Your task to perform on an android device: open app "Expedia: Hotels, Flights & Car" (install if not already installed) and enter user name: "crusader@outlook.com" and password: "Toryize" Image 0: 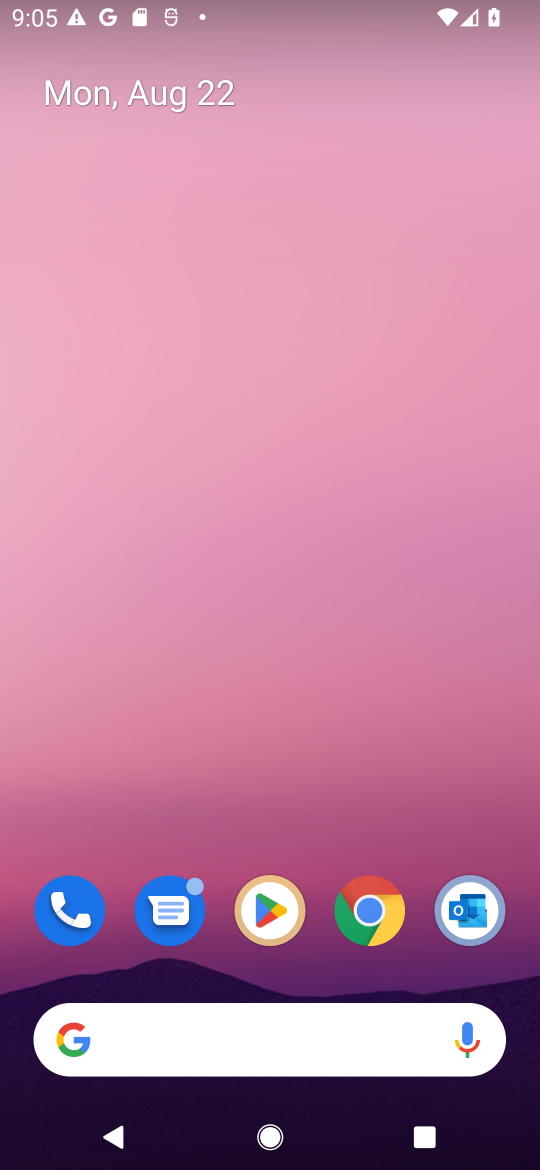
Step 0: click (275, 899)
Your task to perform on an android device: open app "Expedia: Hotels, Flights & Car" (install if not already installed) and enter user name: "crusader@outlook.com" and password: "Toryize" Image 1: 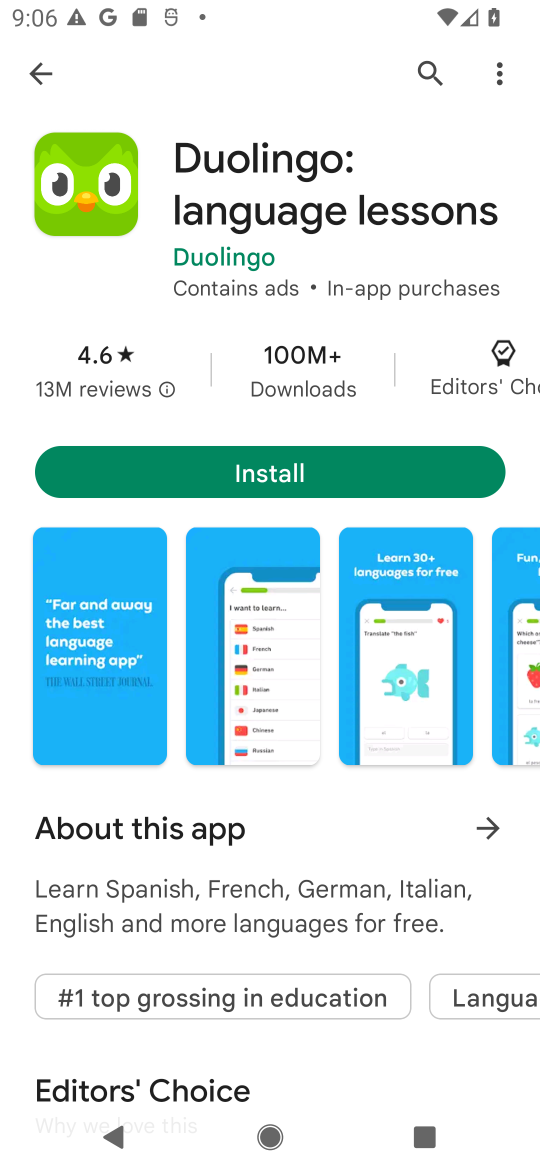
Step 1: click (424, 65)
Your task to perform on an android device: open app "Expedia: Hotels, Flights & Car" (install if not already installed) and enter user name: "crusader@outlook.com" and password: "Toryize" Image 2: 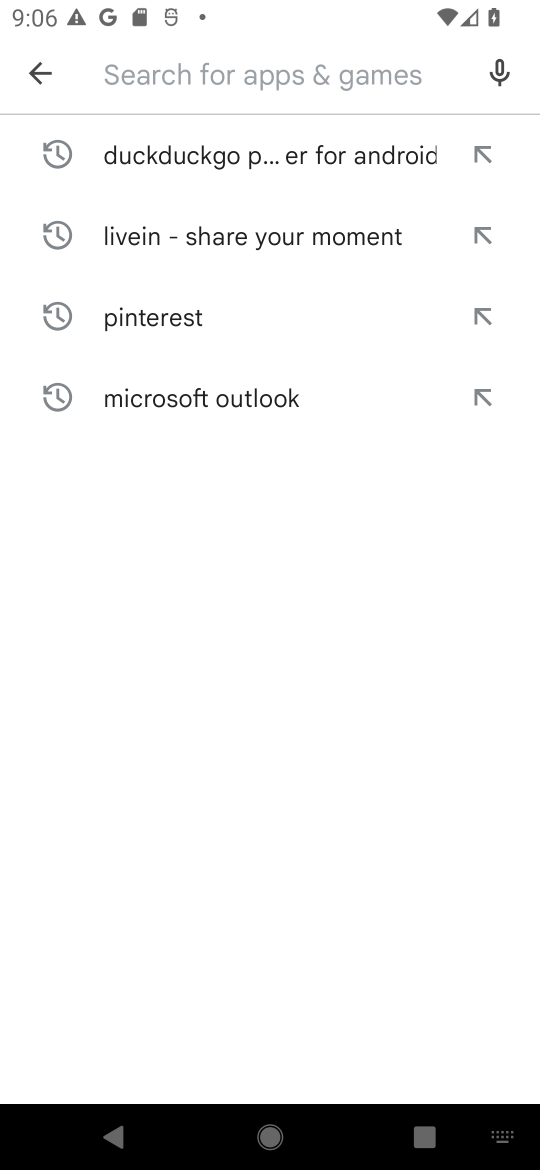
Step 2: type "Expedia: Hotels, Flights & Car"
Your task to perform on an android device: open app "Expedia: Hotels, Flights & Car" (install if not already installed) and enter user name: "crusader@outlook.com" and password: "Toryize" Image 3: 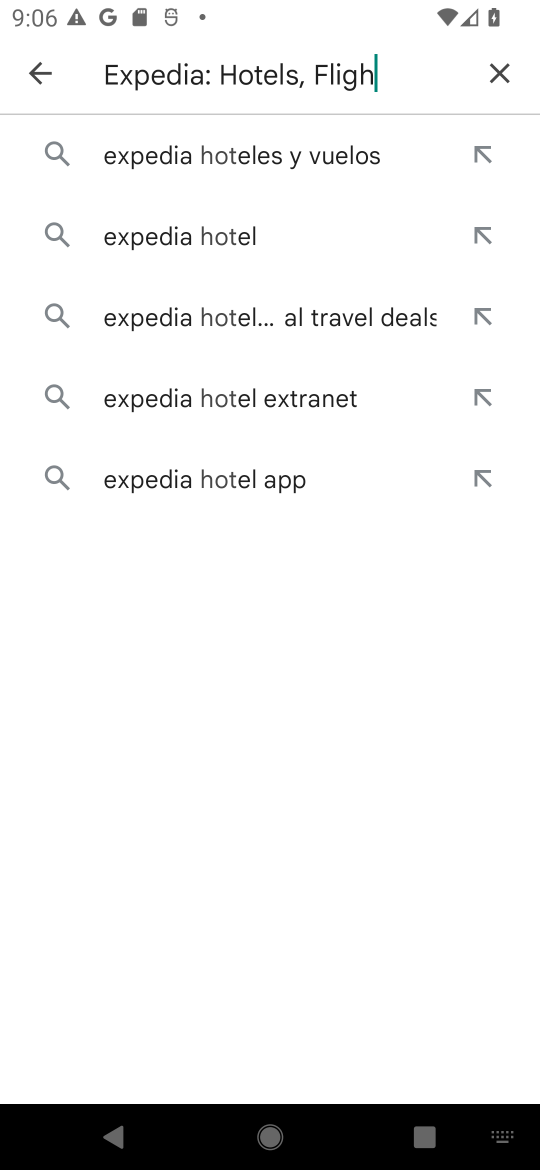
Step 3: type ""
Your task to perform on an android device: open app "Expedia: Hotels, Flights & Car" (install if not already installed) and enter user name: "crusader@outlook.com" and password: "Toryize" Image 4: 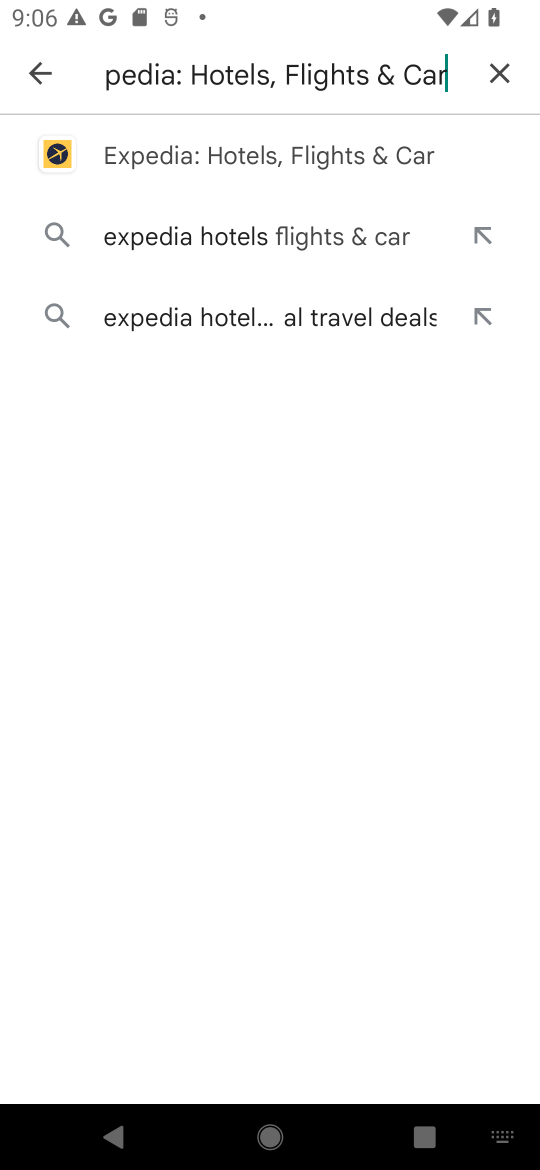
Step 4: click (160, 146)
Your task to perform on an android device: open app "Expedia: Hotels, Flights & Car" (install if not already installed) and enter user name: "crusader@outlook.com" and password: "Toryize" Image 5: 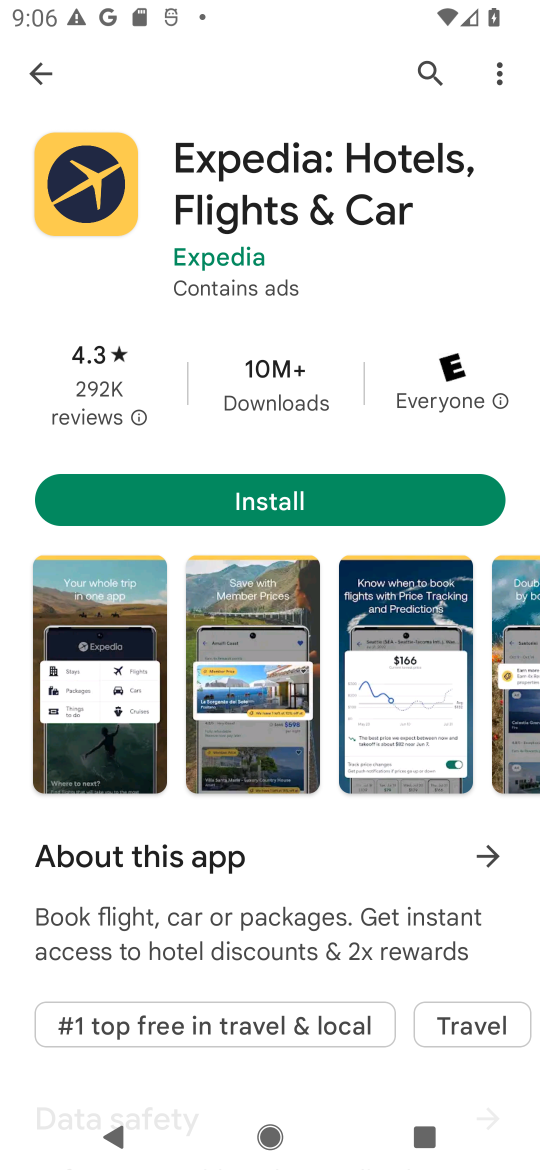
Step 5: click (248, 496)
Your task to perform on an android device: open app "Expedia: Hotels, Flights & Car" (install if not already installed) and enter user name: "crusader@outlook.com" and password: "Toryize" Image 6: 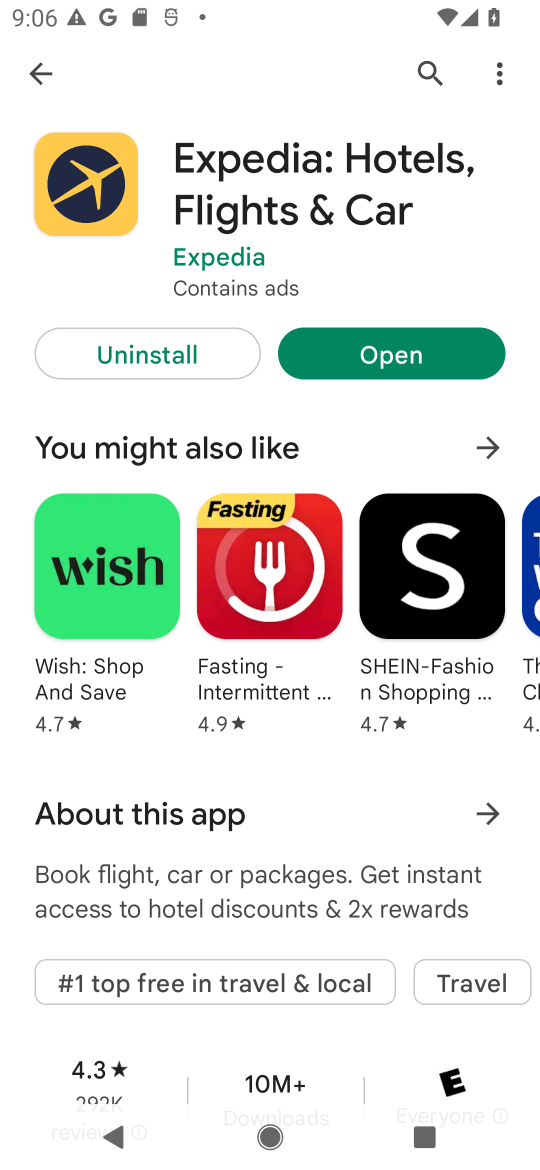
Step 6: click (350, 353)
Your task to perform on an android device: open app "Expedia: Hotels, Flights & Car" (install if not already installed) and enter user name: "crusader@outlook.com" and password: "Toryize" Image 7: 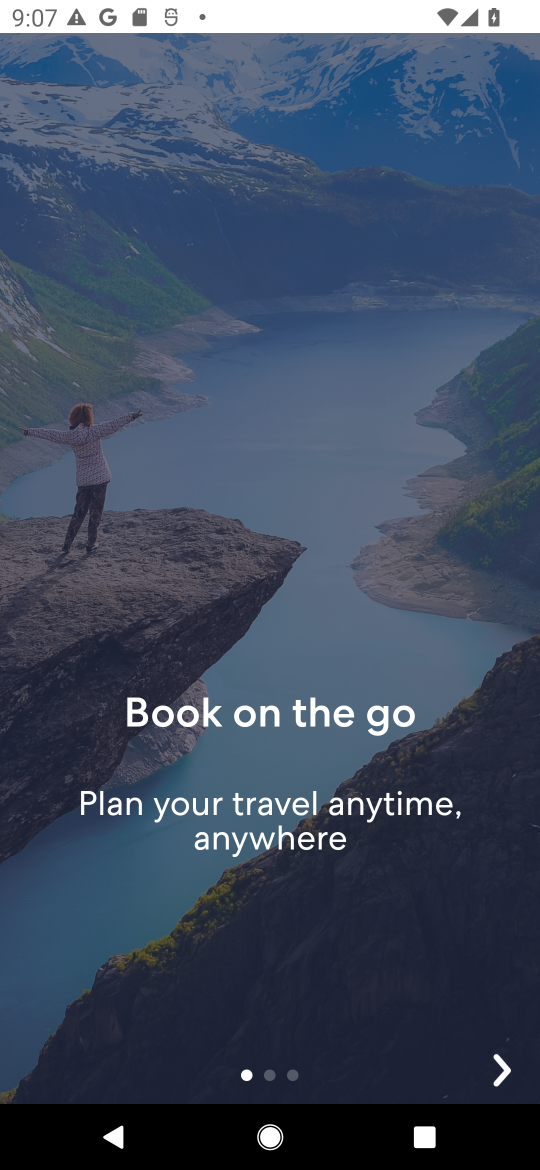
Step 7: task complete